Your task to perform on an android device: star an email in the gmail app Image 0: 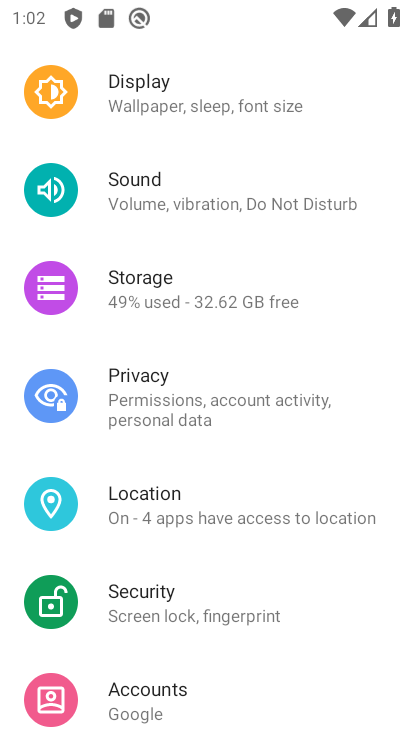
Step 0: press home button
Your task to perform on an android device: star an email in the gmail app Image 1: 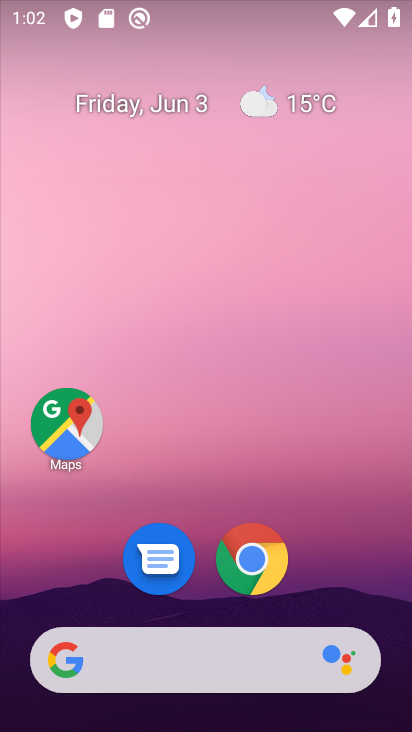
Step 1: drag from (85, 613) to (157, 283)
Your task to perform on an android device: star an email in the gmail app Image 2: 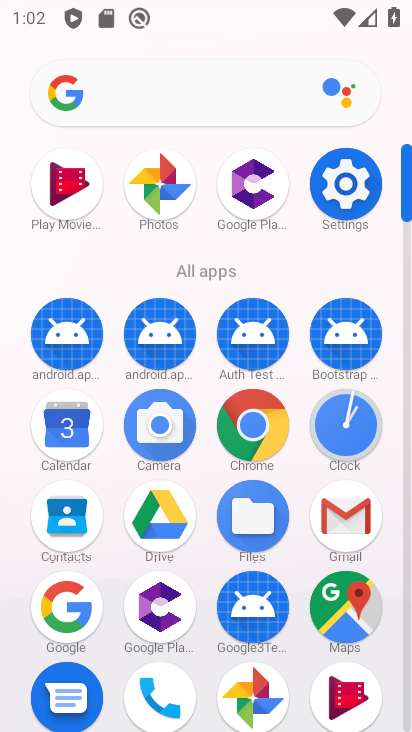
Step 2: click (371, 527)
Your task to perform on an android device: star an email in the gmail app Image 3: 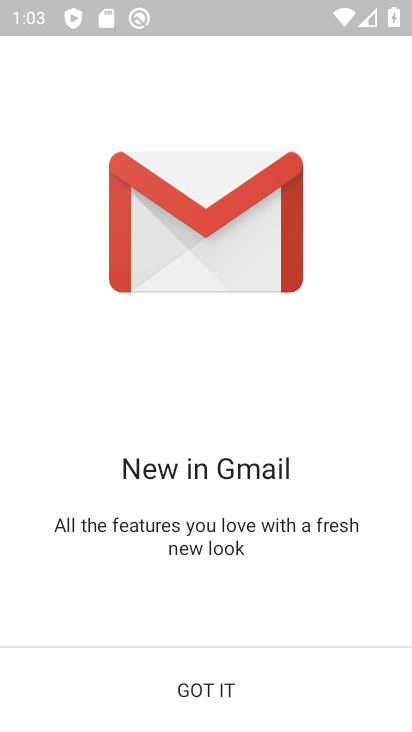
Step 3: click (238, 679)
Your task to perform on an android device: star an email in the gmail app Image 4: 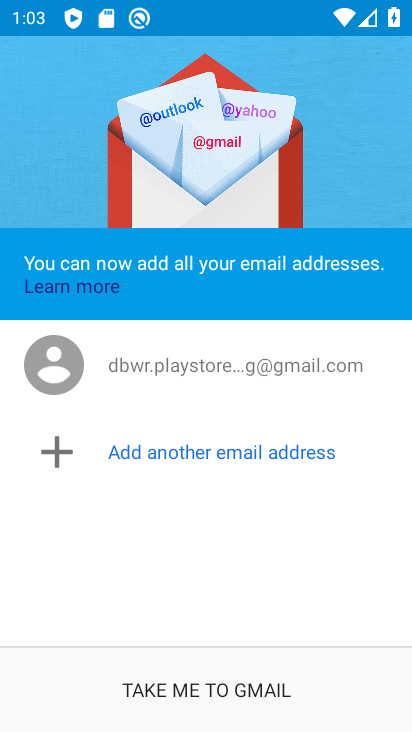
Step 4: click (237, 696)
Your task to perform on an android device: star an email in the gmail app Image 5: 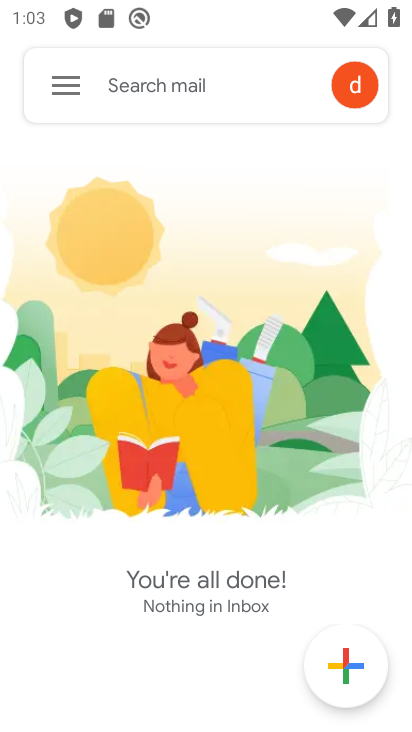
Step 5: click (81, 80)
Your task to perform on an android device: star an email in the gmail app Image 6: 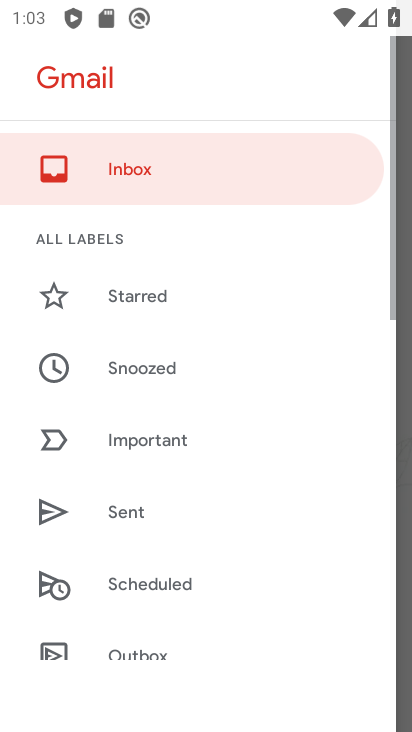
Step 6: drag from (175, 629) to (292, 224)
Your task to perform on an android device: star an email in the gmail app Image 7: 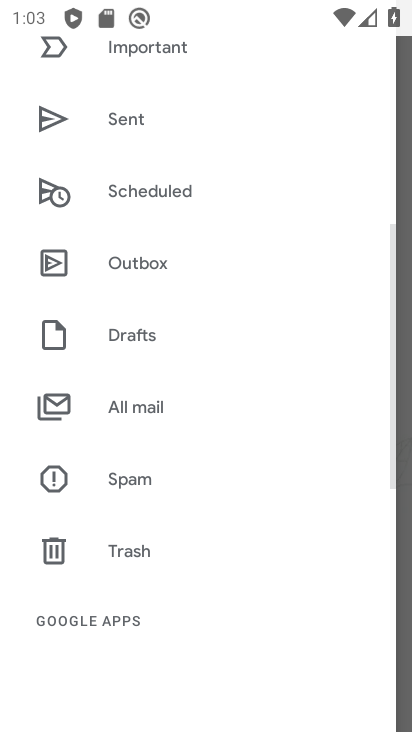
Step 7: click (225, 401)
Your task to perform on an android device: star an email in the gmail app Image 8: 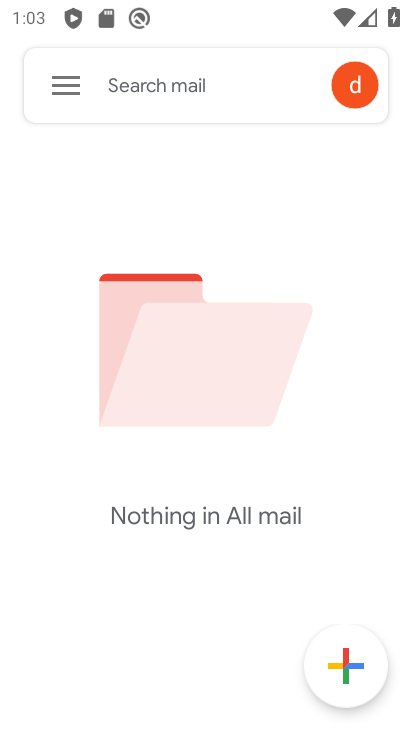
Step 8: task complete